Your task to perform on an android device: Open calendar and show me the third week of next month Image 0: 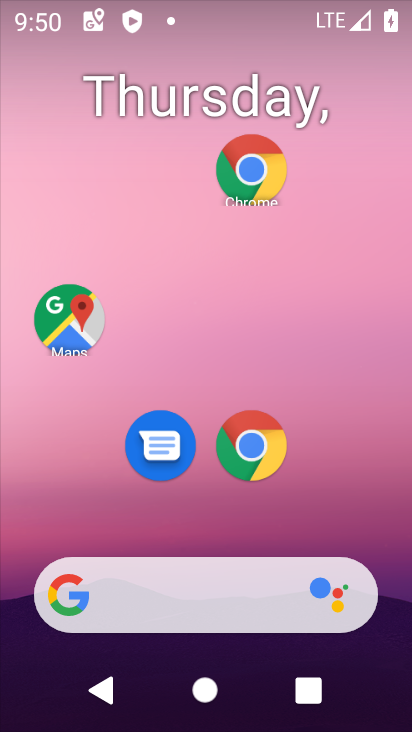
Step 0: drag from (217, 535) to (184, 72)
Your task to perform on an android device: Open calendar and show me the third week of next month Image 1: 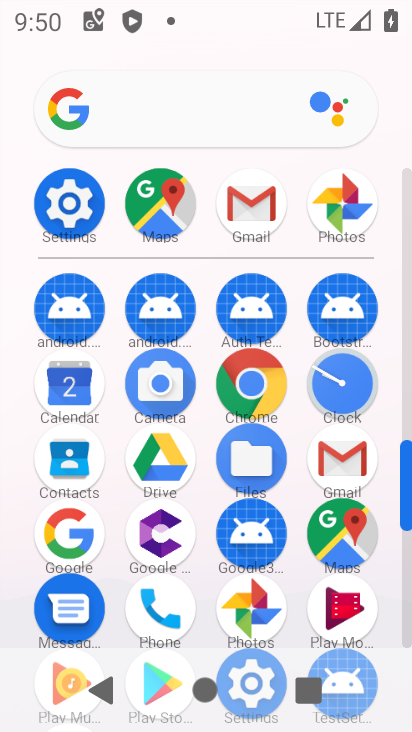
Step 1: click (66, 400)
Your task to perform on an android device: Open calendar and show me the third week of next month Image 2: 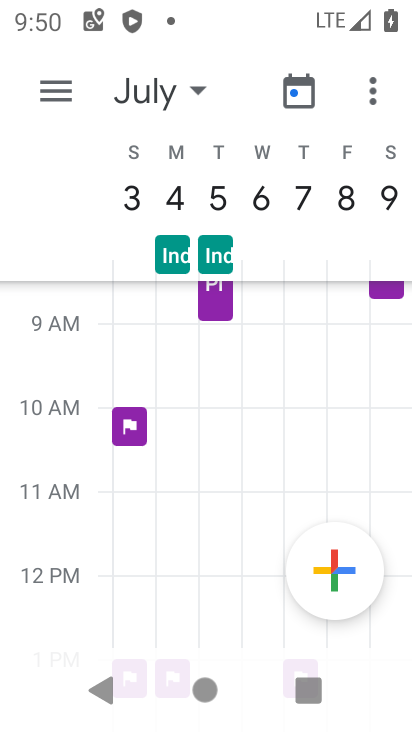
Step 2: task complete